Your task to perform on an android device: Open location settings Image 0: 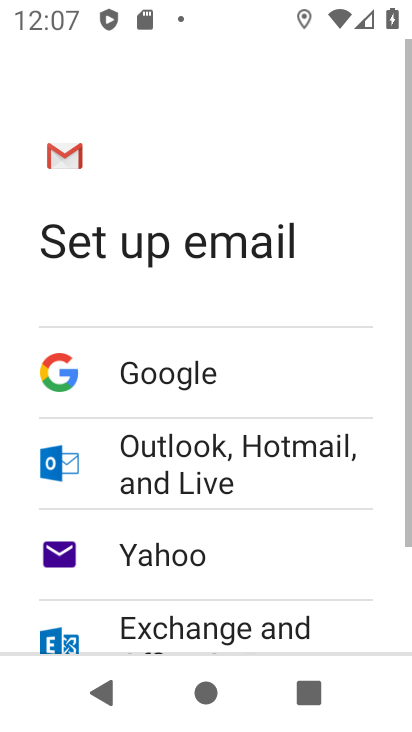
Step 0: press home button
Your task to perform on an android device: Open location settings Image 1: 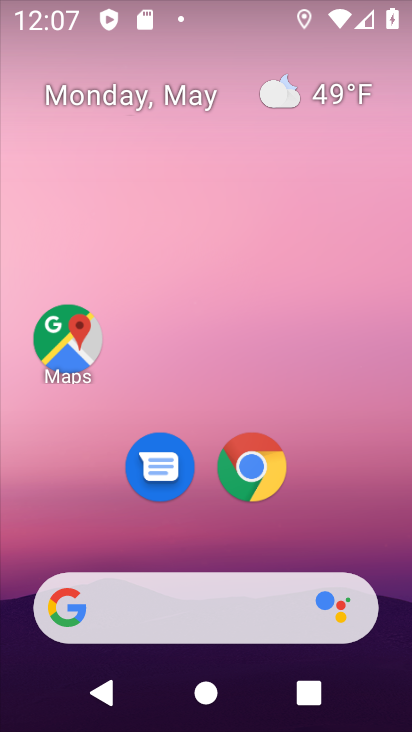
Step 1: drag from (375, 529) to (373, 126)
Your task to perform on an android device: Open location settings Image 2: 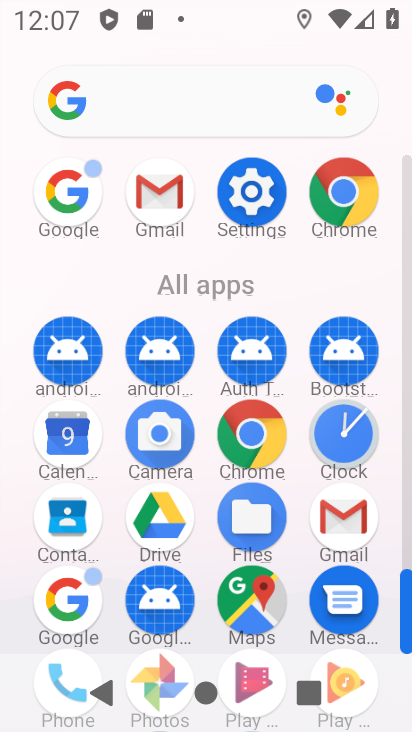
Step 2: click (252, 219)
Your task to perform on an android device: Open location settings Image 3: 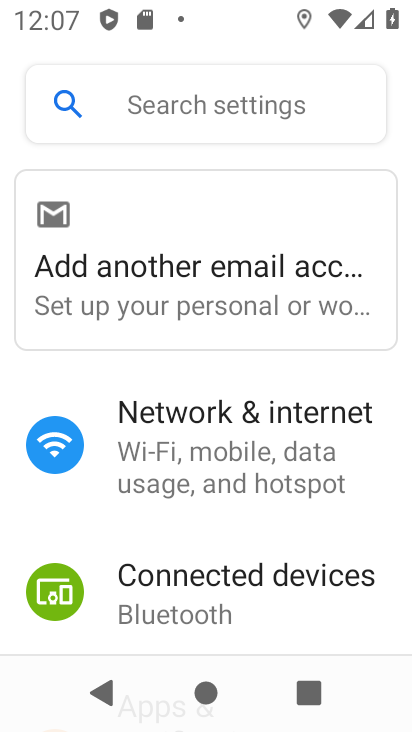
Step 3: drag from (243, 605) to (249, 180)
Your task to perform on an android device: Open location settings Image 4: 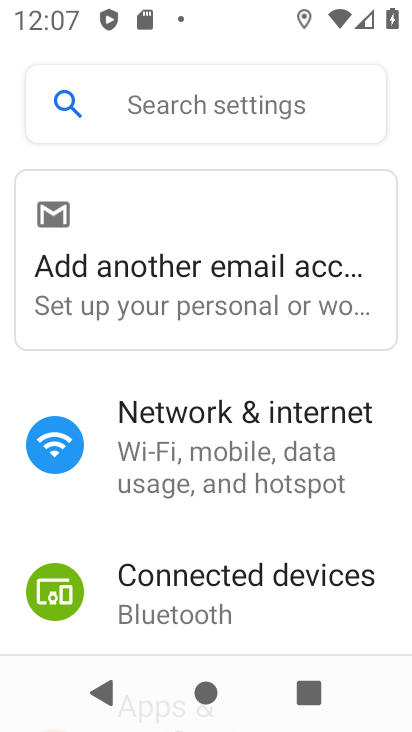
Step 4: drag from (298, 648) to (316, 300)
Your task to perform on an android device: Open location settings Image 5: 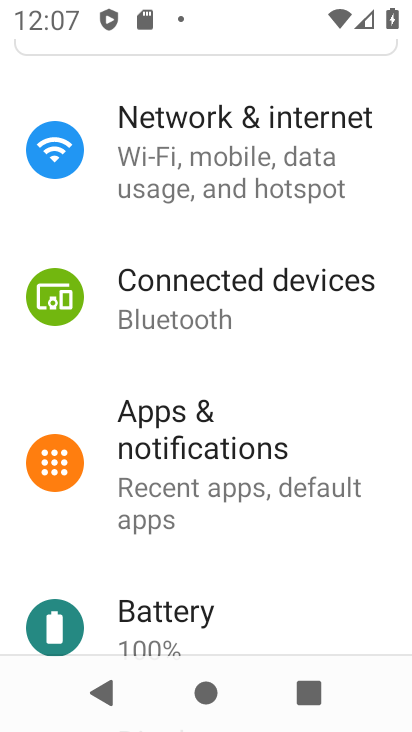
Step 5: drag from (318, 576) to (312, 214)
Your task to perform on an android device: Open location settings Image 6: 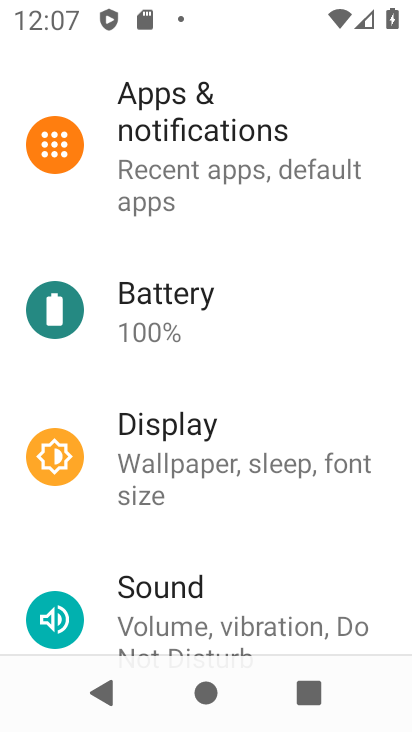
Step 6: drag from (309, 520) to (323, 221)
Your task to perform on an android device: Open location settings Image 7: 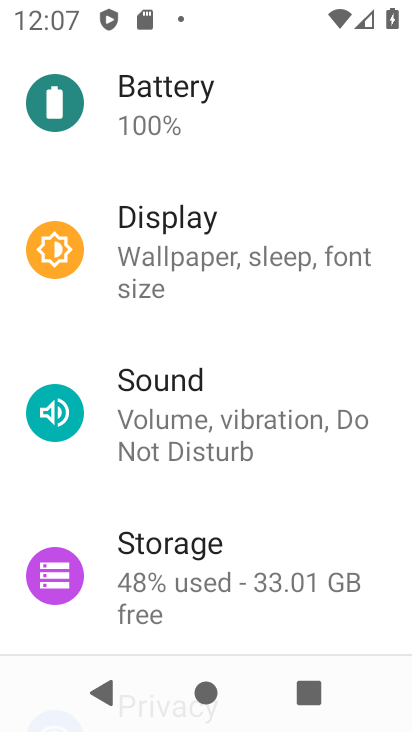
Step 7: drag from (292, 489) to (315, 232)
Your task to perform on an android device: Open location settings Image 8: 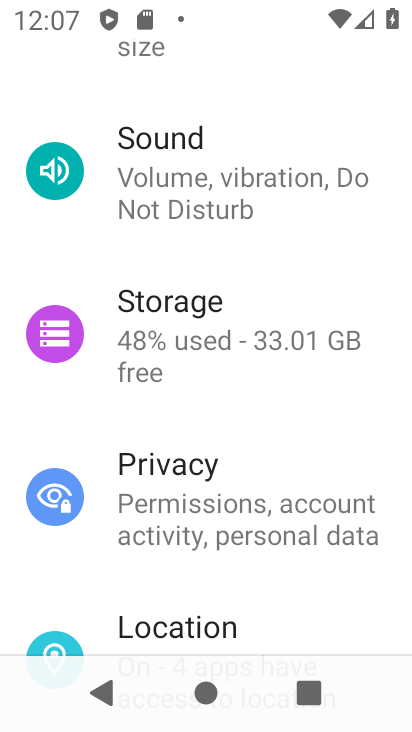
Step 8: drag from (277, 608) to (325, 271)
Your task to perform on an android device: Open location settings Image 9: 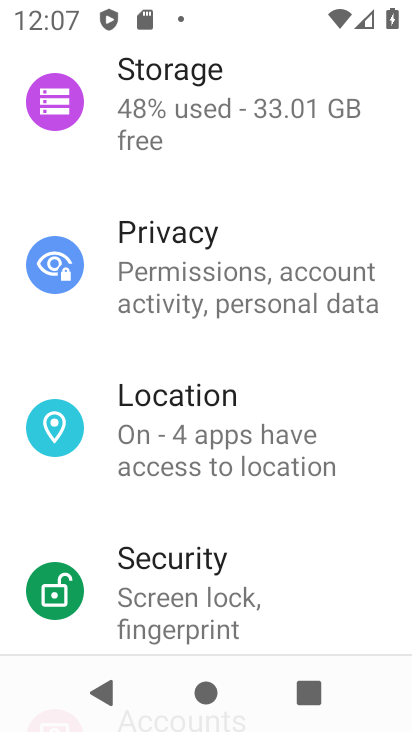
Step 9: click (236, 441)
Your task to perform on an android device: Open location settings Image 10: 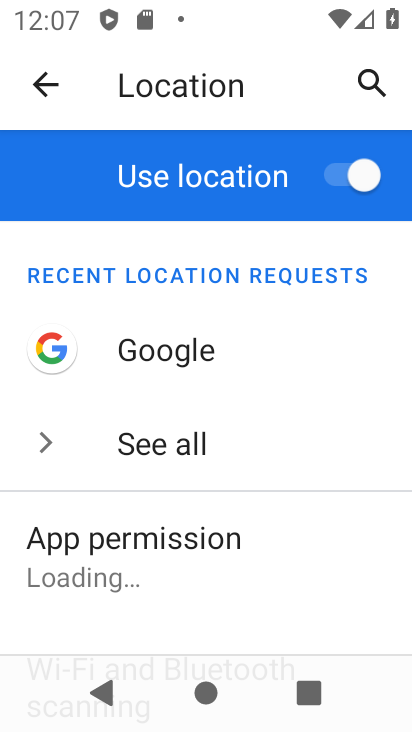
Step 10: task complete